Your task to perform on an android device: find which apps use the phone's location Image 0: 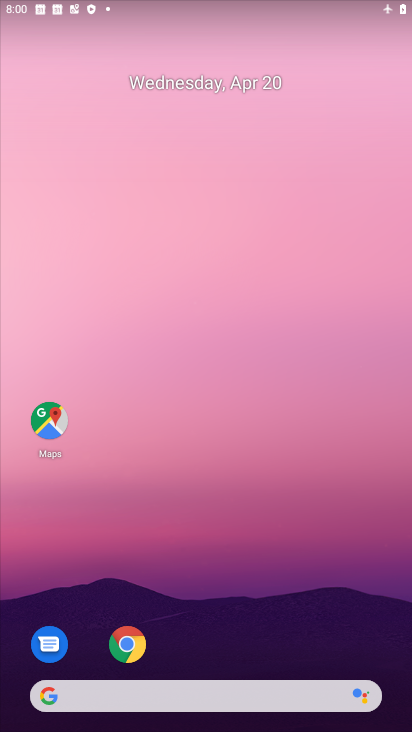
Step 0: drag from (319, 634) to (195, 9)
Your task to perform on an android device: find which apps use the phone's location Image 1: 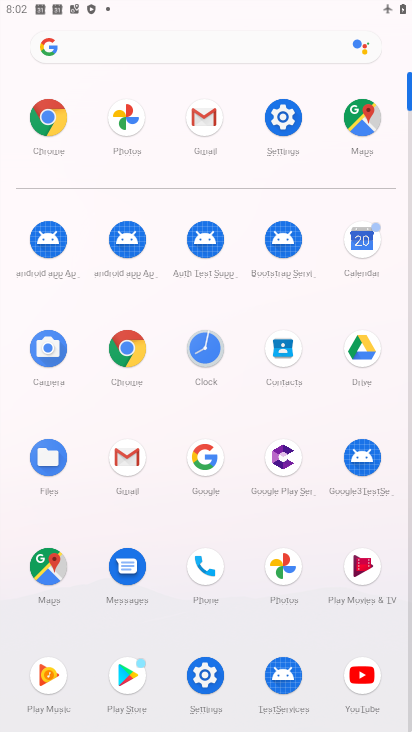
Step 1: click (293, 120)
Your task to perform on an android device: find which apps use the phone's location Image 2: 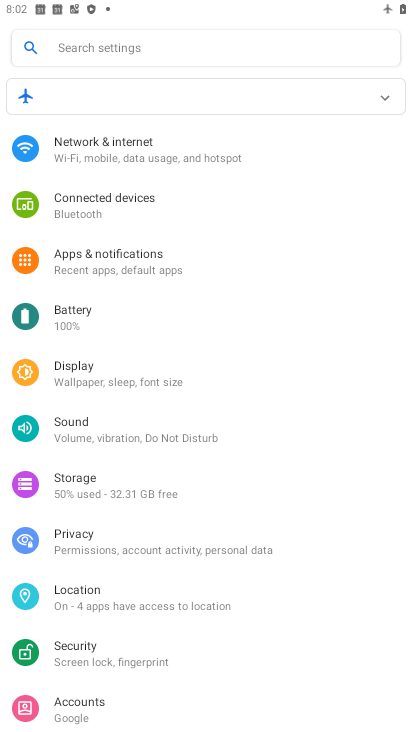
Step 2: click (123, 600)
Your task to perform on an android device: find which apps use the phone's location Image 3: 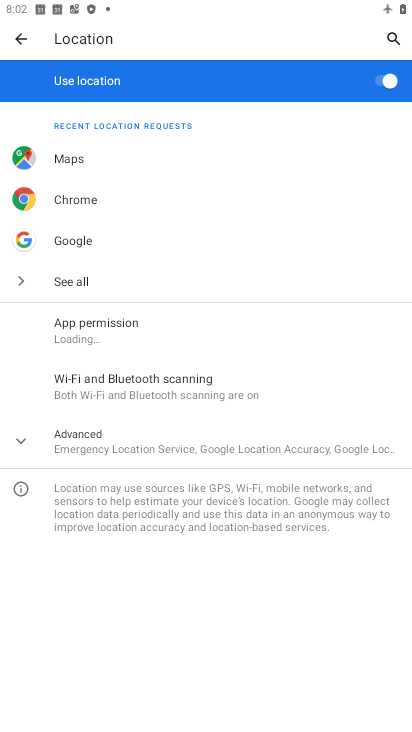
Step 3: click (134, 327)
Your task to perform on an android device: find which apps use the phone's location Image 4: 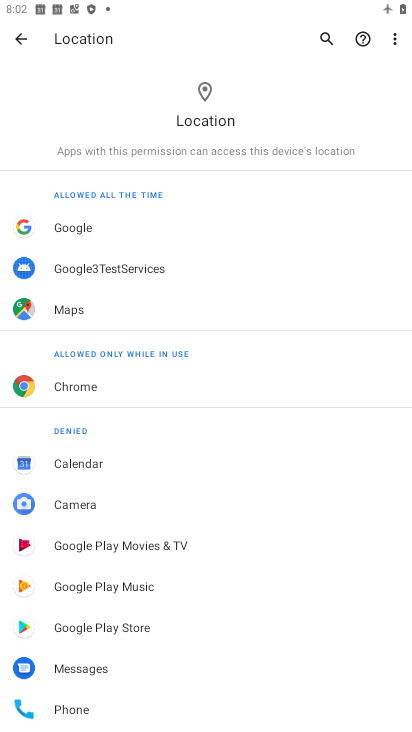
Step 4: drag from (152, 552) to (149, 265)
Your task to perform on an android device: find which apps use the phone's location Image 5: 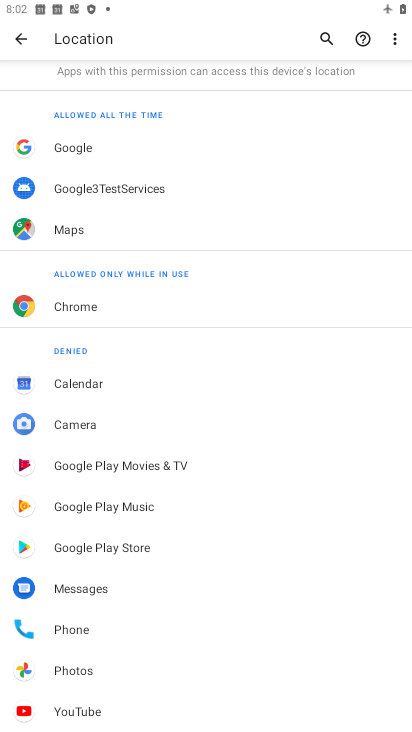
Step 5: click (104, 635)
Your task to perform on an android device: find which apps use the phone's location Image 6: 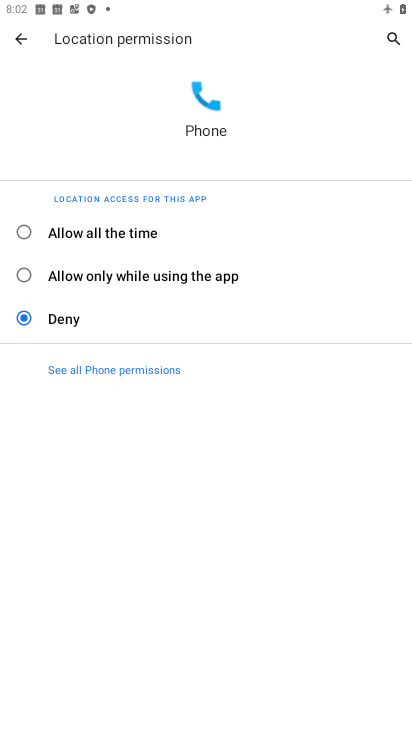
Step 6: click (101, 226)
Your task to perform on an android device: find which apps use the phone's location Image 7: 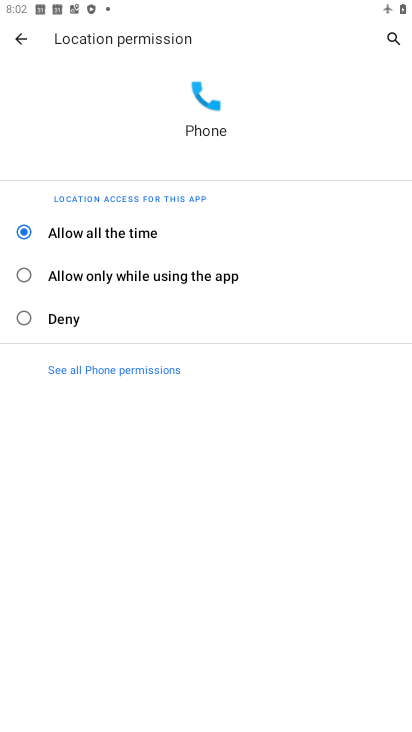
Step 7: task complete